Your task to perform on an android device: make emails show in primary in the gmail app Image 0: 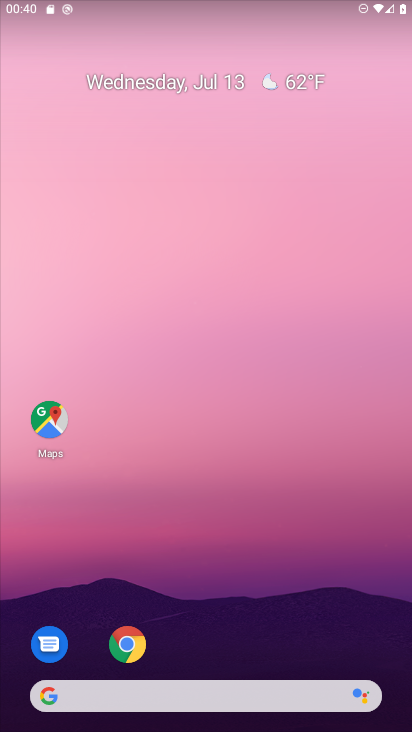
Step 0: drag from (253, 660) to (85, 127)
Your task to perform on an android device: make emails show in primary in the gmail app Image 1: 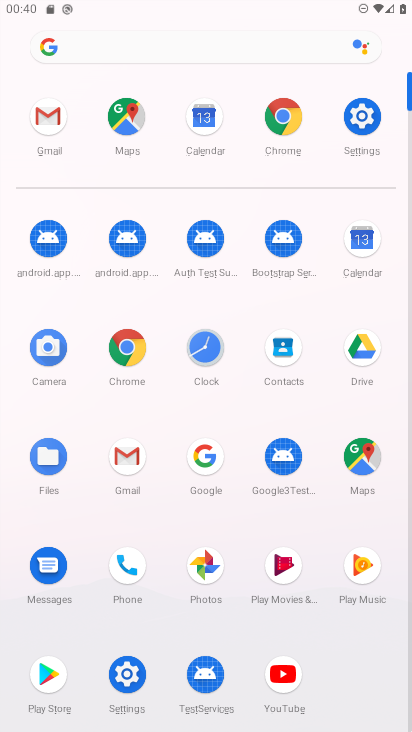
Step 1: click (121, 449)
Your task to perform on an android device: make emails show in primary in the gmail app Image 2: 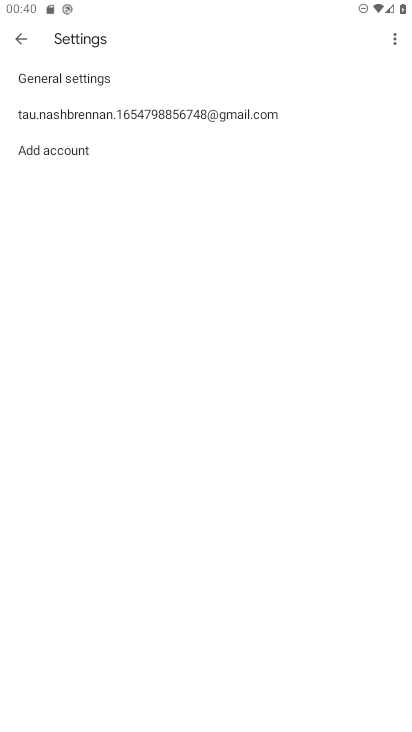
Step 2: click (110, 108)
Your task to perform on an android device: make emails show in primary in the gmail app Image 3: 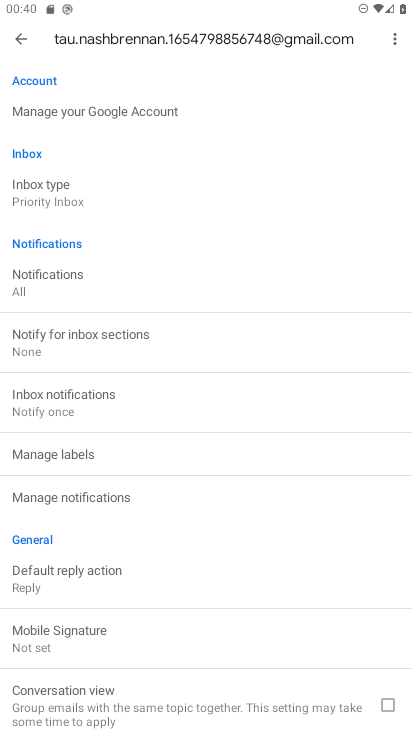
Step 3: click (62, 194)
Your task to perform on an android device: make emails show in primary in the gmail app Image 4: 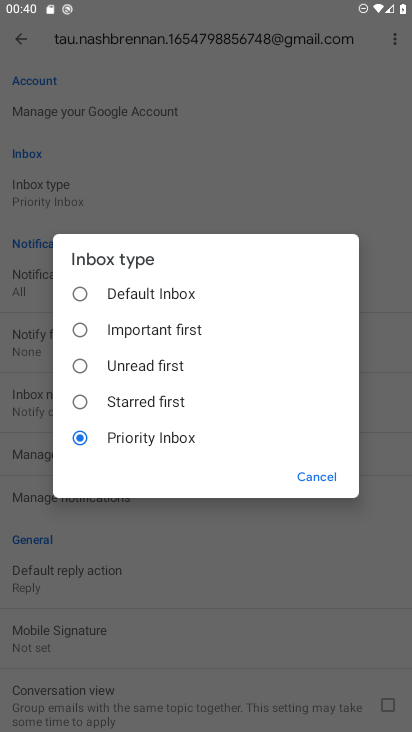
Step 4: click (114, 300)
Your task to perform on an android device: make emails show in primary in the gmail app Image 5: 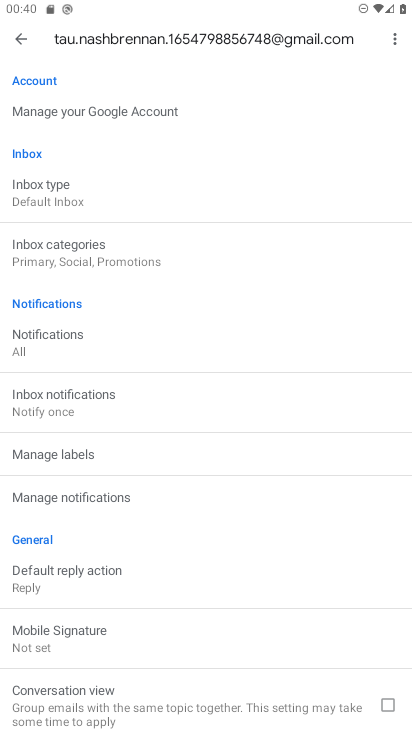
Step 5: click (18, 38)
Your task to perform on an android device: make emails show in primary in the gmail app Image 6: 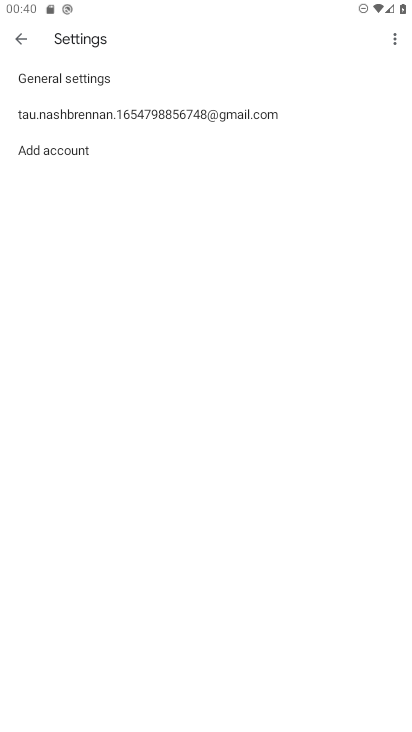
Step 6: click (18, 38)
Your task to perform on an android device: make emails show in primary in the gmail app Image 7: 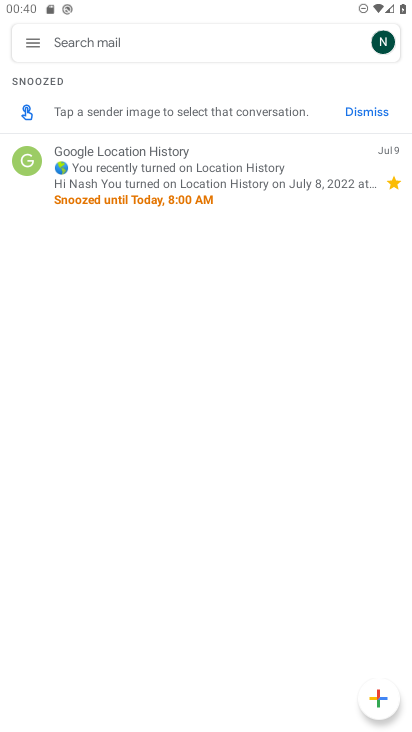
Step 7: click (18, 38)
Your task to perform on an android device: make emails show in primary in the gmail app Image 8: 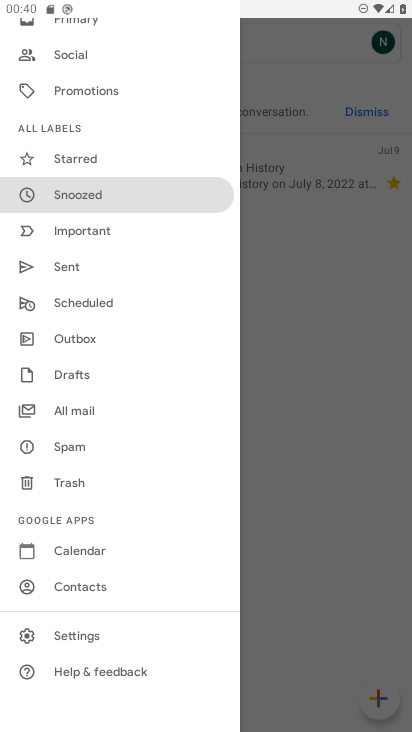
Step 8: click (36, 26)
Your task to perform on an android device: make emails show in primary in the gmail app Image 9: 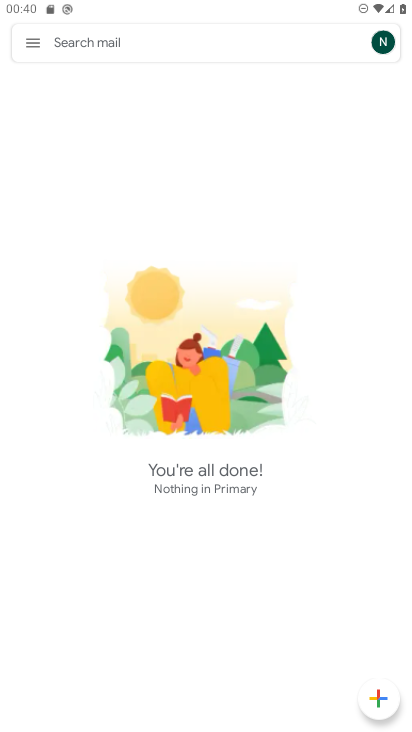
Step 9: task complete